Your task to perform on an android device: What's on my calendar tomorrow? Image 0: 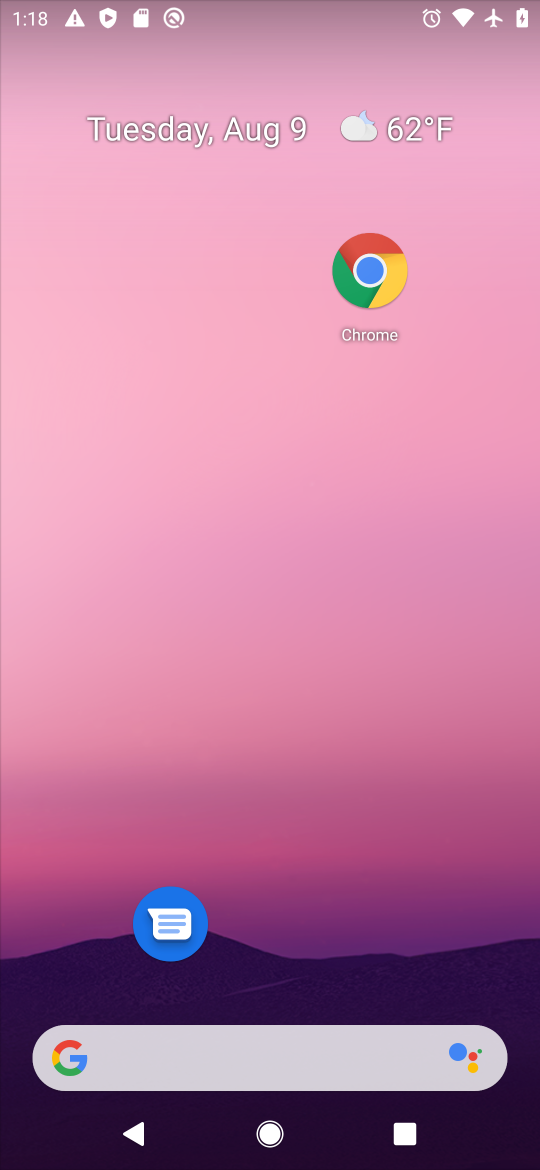
Step 0: drag from (327, 1021) to (116, 3)
Your task to perform on an android device: What's on my calendar tomorrow? Image 1: 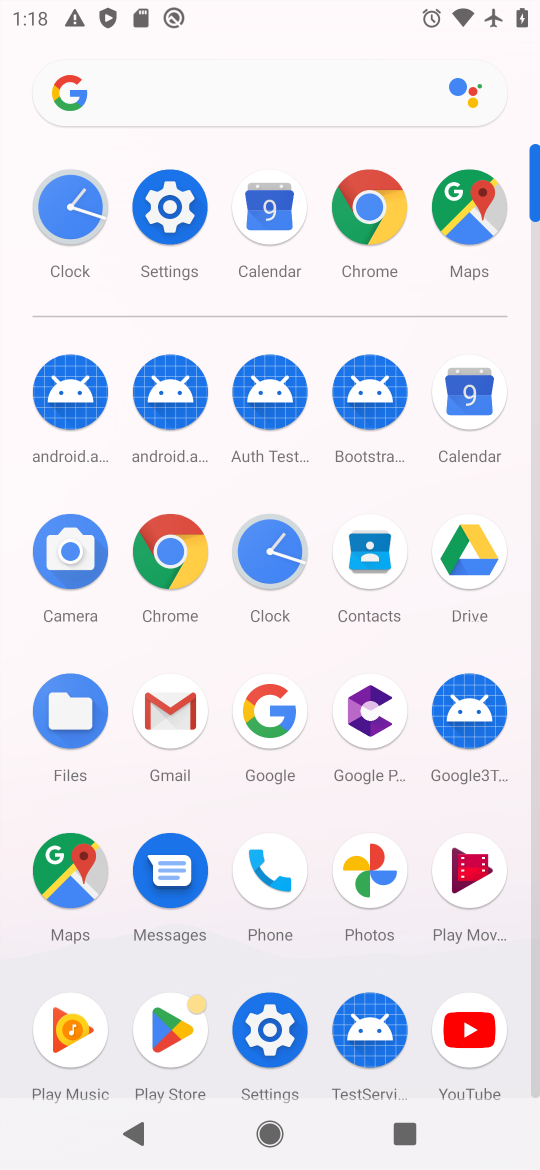
Step 1: click (271, 239)
Your task to perform on an android device: What's on my calendar tomorrow? Image 2: 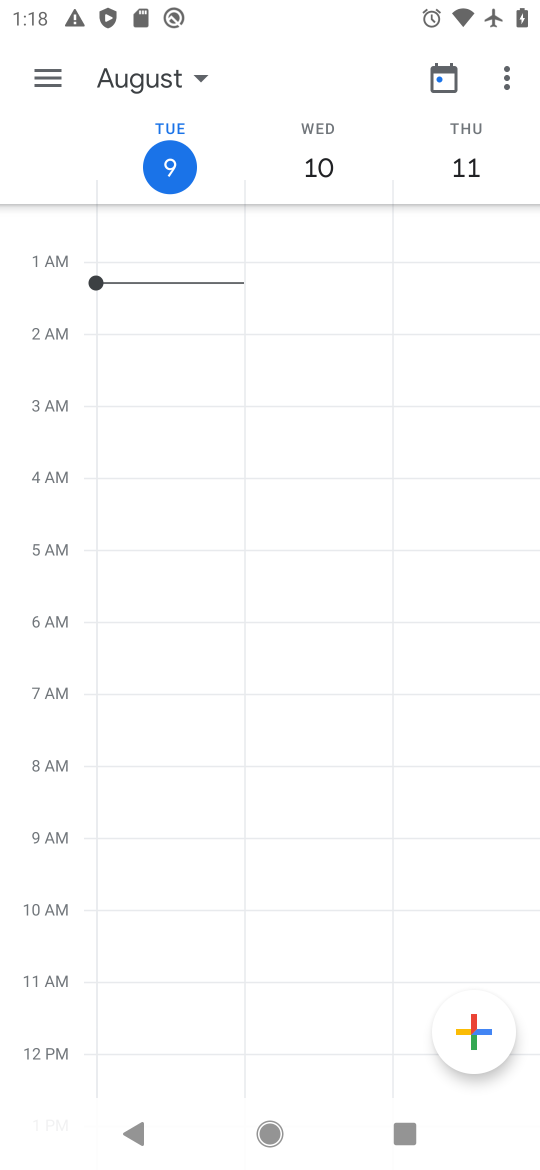
Step 2: task complete